Your task to perform on an android device: toggle sleep mode Image 0: 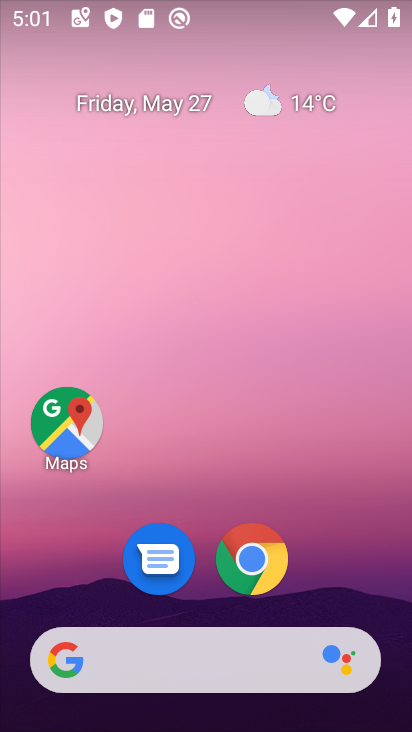
Step 0: drag from (367, 583) to (387, 20)
Your task to perform on an android device: toggle sleep mode Image 1: 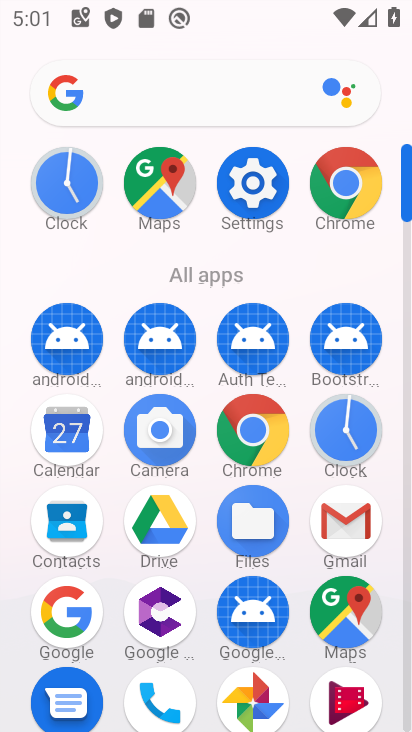
Step 1: click (263, 186)
Your task to perform on an android device: toggle sleep mode Image 2: 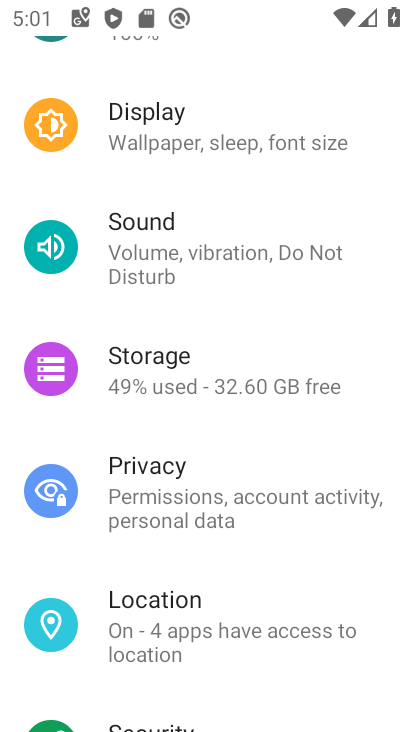
Step 2: task complete